Your task to perform on an android device: delete location history Image 0: 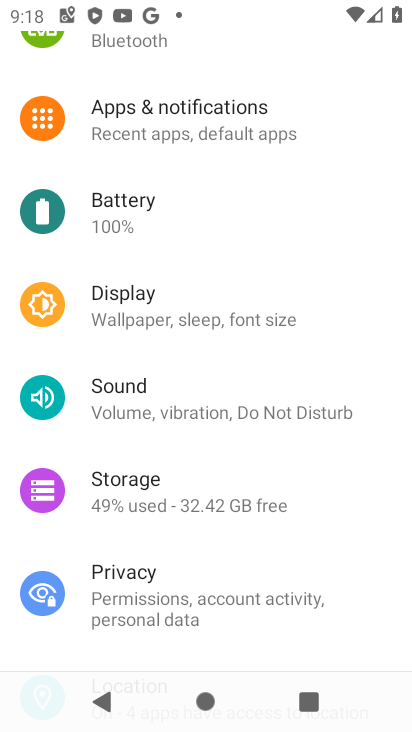
Step 0: press home button
Your task to perform on an android device: delete location history Image 1: 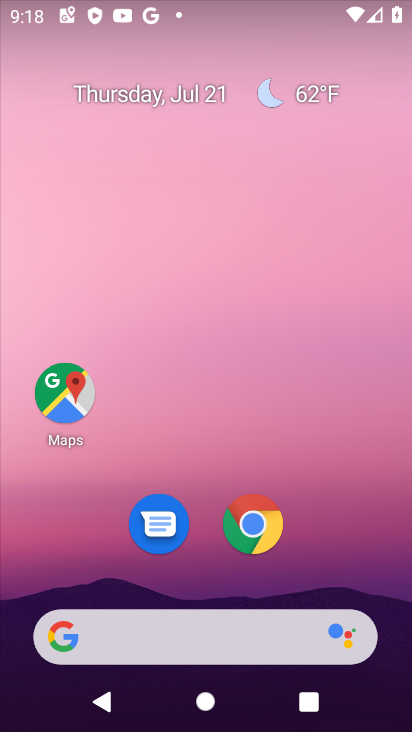
Step 1: click (67, 405)
Your task to perform on an android device: delete location history Image 2: 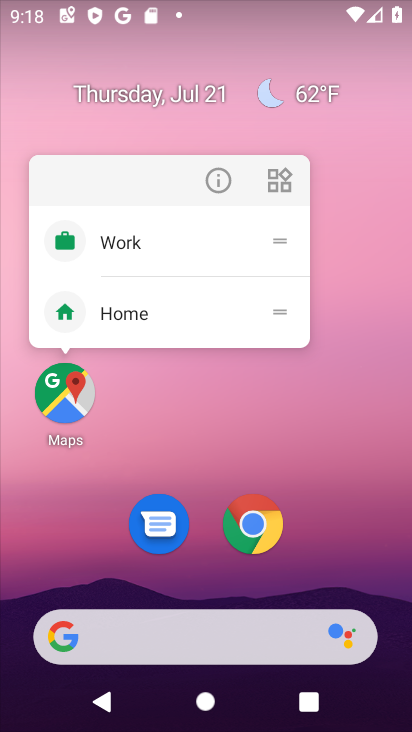
Step 2: click (61, 394)
Your task to perform on an android device: delete location history Image 3: 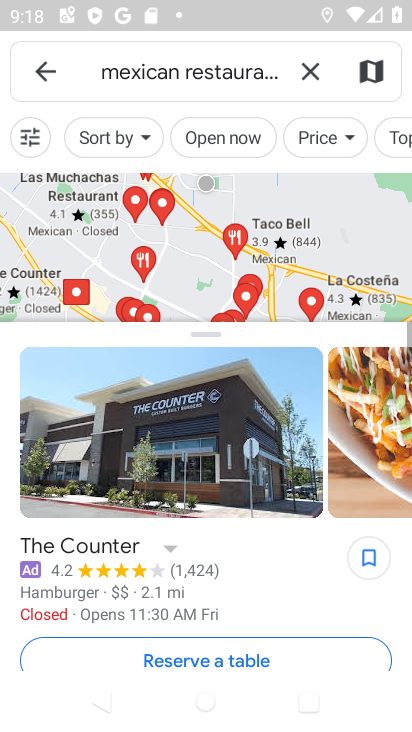
Step 3: click (45, 78)
Your task to perform on an android device: delete location history Image 4: 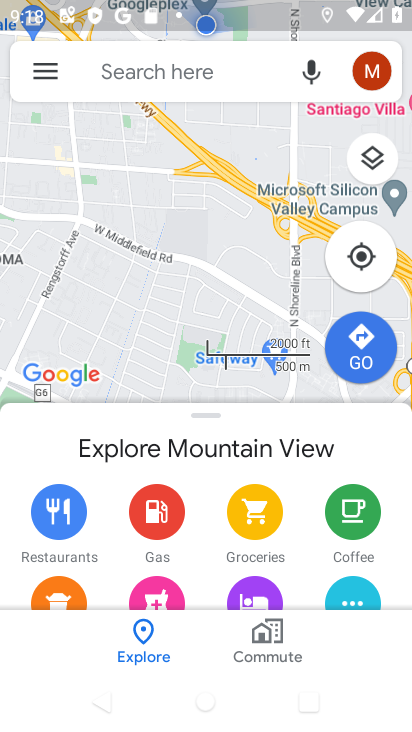
Step 4: click (40, 73)
Your task to perform on an android device: delete location history Image 5: 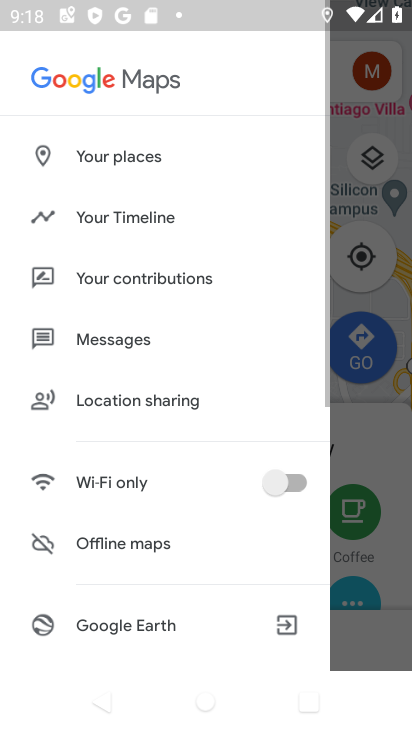
Step 5: click (117, 221)
Your task to perform on an android device: delete location history Image 6: 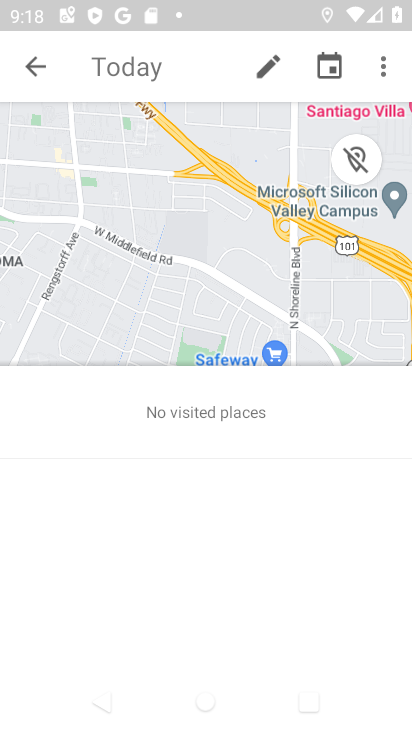
Step 6: click (387, 68)
Your task to perform on an android device: delete location history Image 7: 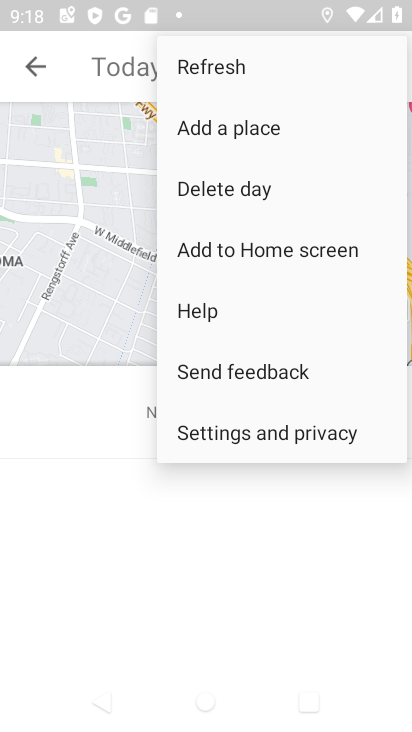
Step 7: click (246, 431)
Your task to perform on an android device: delete location history Image 8: 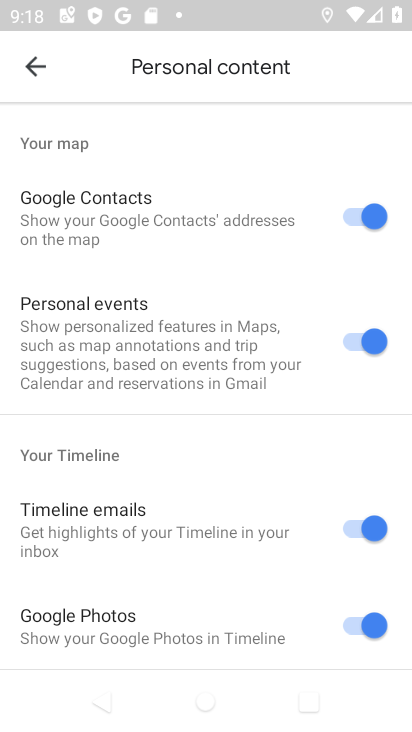
Step 8: drag from (216, 581) to (350, 113)
Your task to perform on an android device: delete location history Image 9: 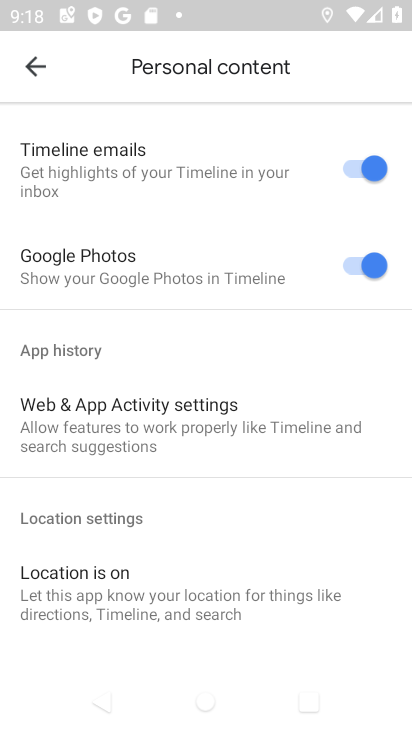
Step 9: drag from (239, 398) to (323, 120)
Your task to perform on an android device: delete location history Image 10: 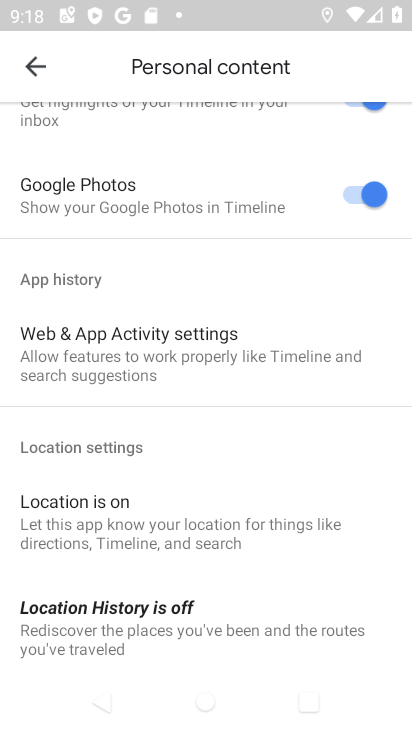
Step 10: drag from (139, 564) to (305, 169)
Your task to perform on an android device: delete location history Image 11: 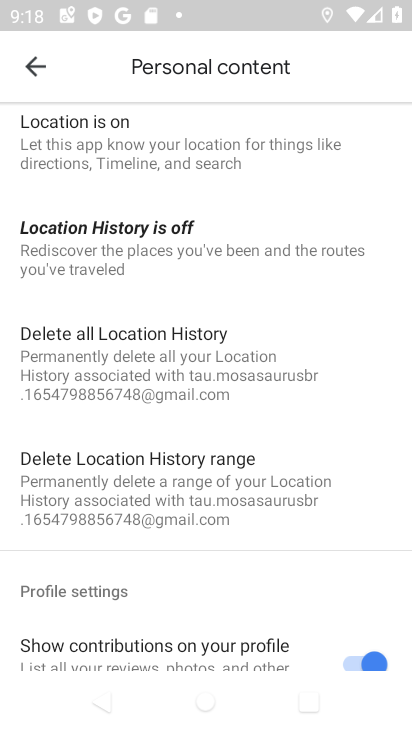
Step 11: click (152, 357)
Your task to perform on an android device: delete location history Image 12: 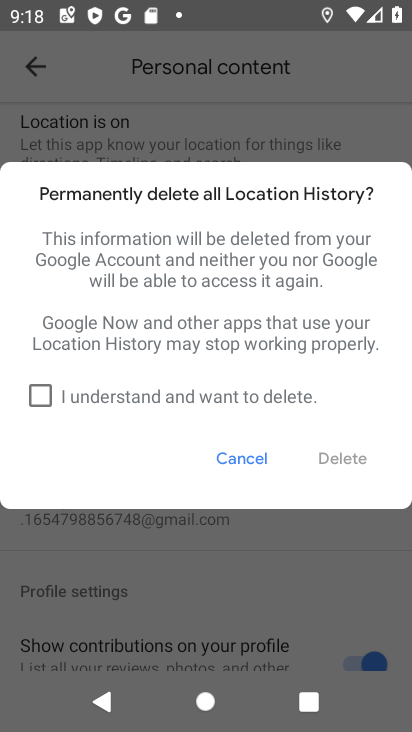
Step 12: click (38, 404)
Your task to perform on an android device: delete location history Image 13: 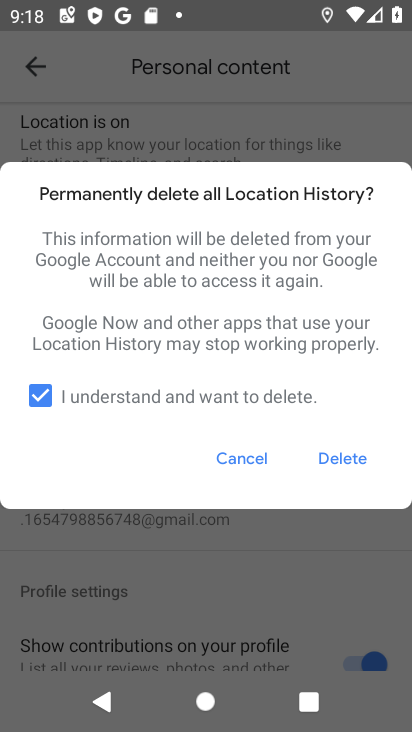
Step 13: click (357, 464)
Your task to perform on an android device: delete location history Image 14: 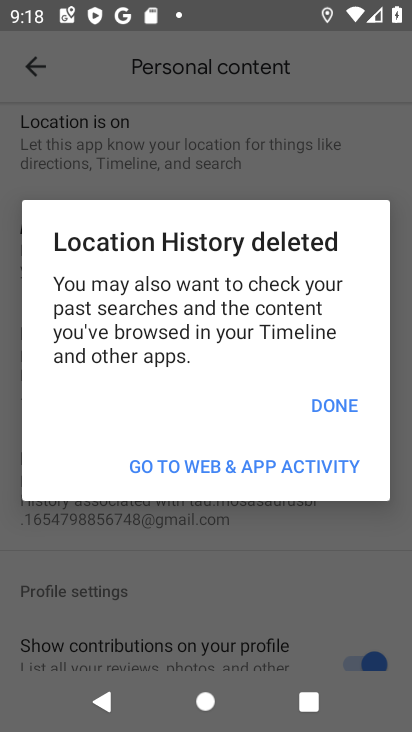
Step 14: click (343, 415)
Your task to perform on an android device: delete location history Image 15: 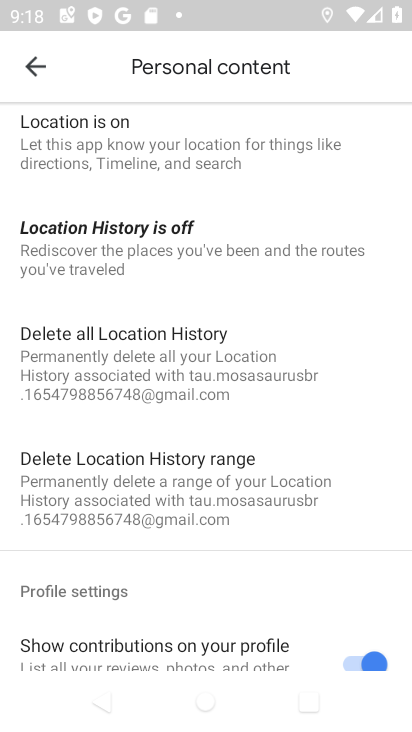
Step 15: task complete